Your task to perform on an android device: check android version Image 0: 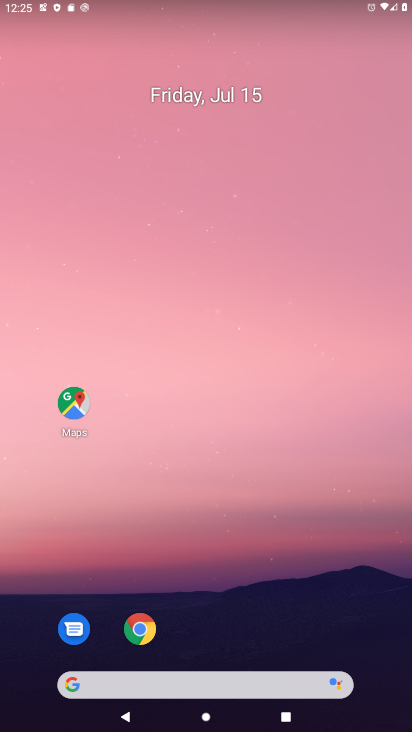
Step 0: press home button
Your task to perform on an android device: check android version Image 1: 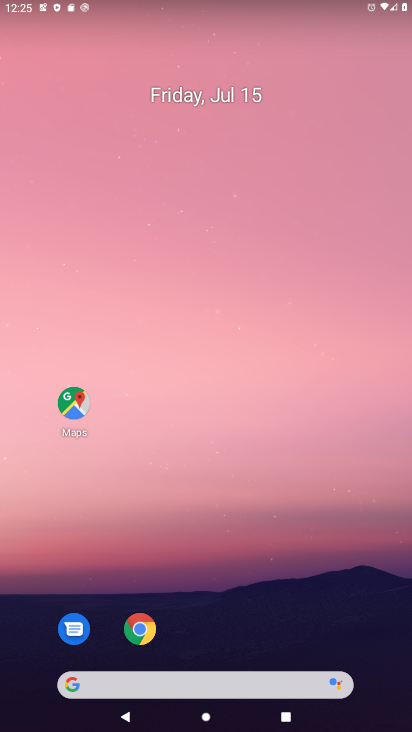
Step 1: drag from (224, 653) to (275, 186)
Your task to perform on an android device: check android version Image 2: 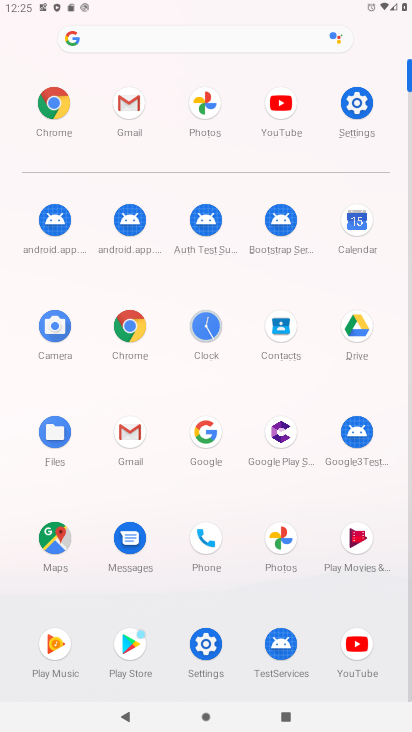
Step 2: drag from (259, 622) to (331, 229)
Your task to perform on an android device: check android version Image 3: 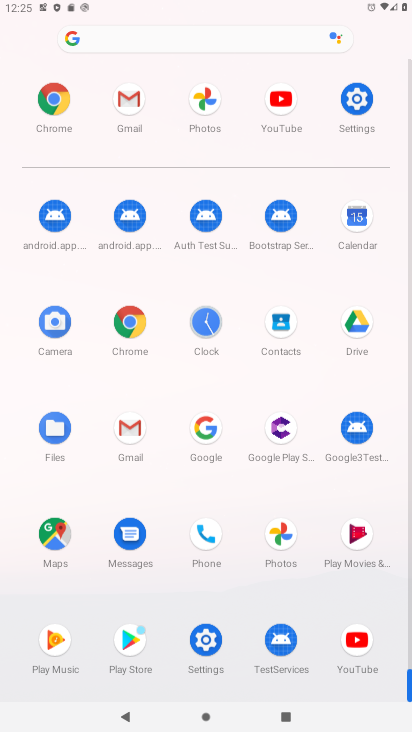
Step 3: click (363, 130)
Your task to perform on an android device: check android version Image 4: 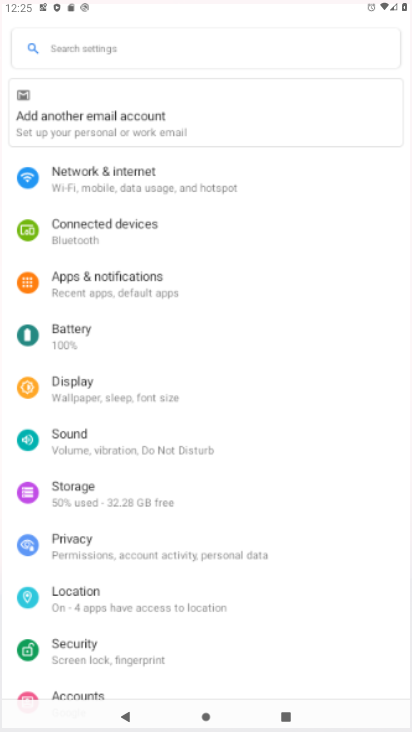
Step 4: click (360, 105)
Your task to perform on an android device: check android version Image 5: 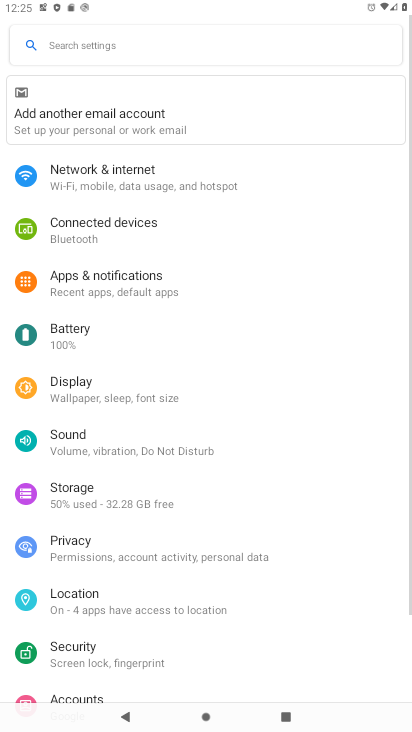
Step 5: drag from (362, 594) to (358, 148)
Your task to perform on an android device: check android version Image 6: 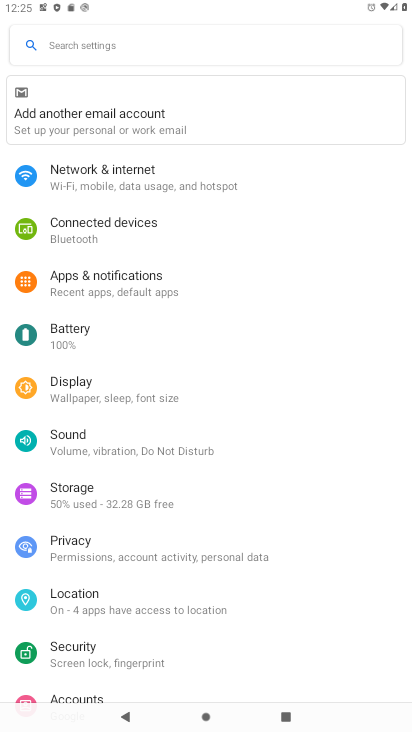
Step 6: drag from (314, 532) to (407, 106)
Your task to perform on an android device: check android version Image 7: 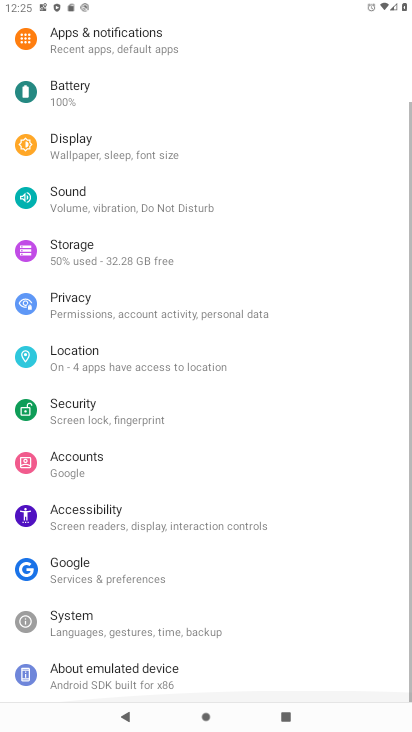
Step 7: drag from (376, 645) to (410, 236)
Your task to perform on an android device: check android version Image 8: 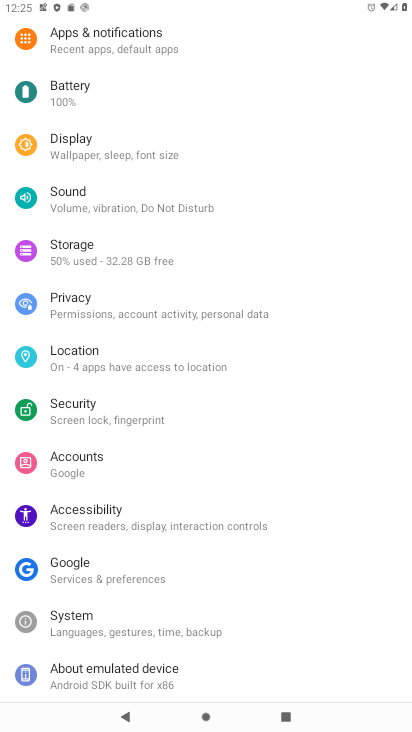
Step 8: click (115, 674)
Your task to perform on an android device: check android version Image 9: 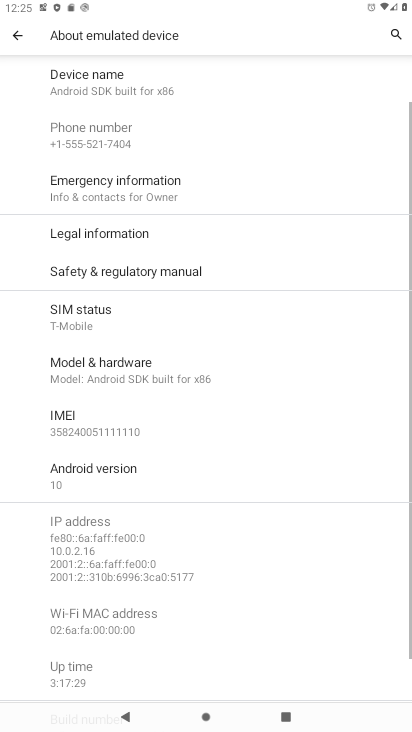
Step 9: task complete